Your task to perform on an android device: uninstall "Google Calendar" Image 0: 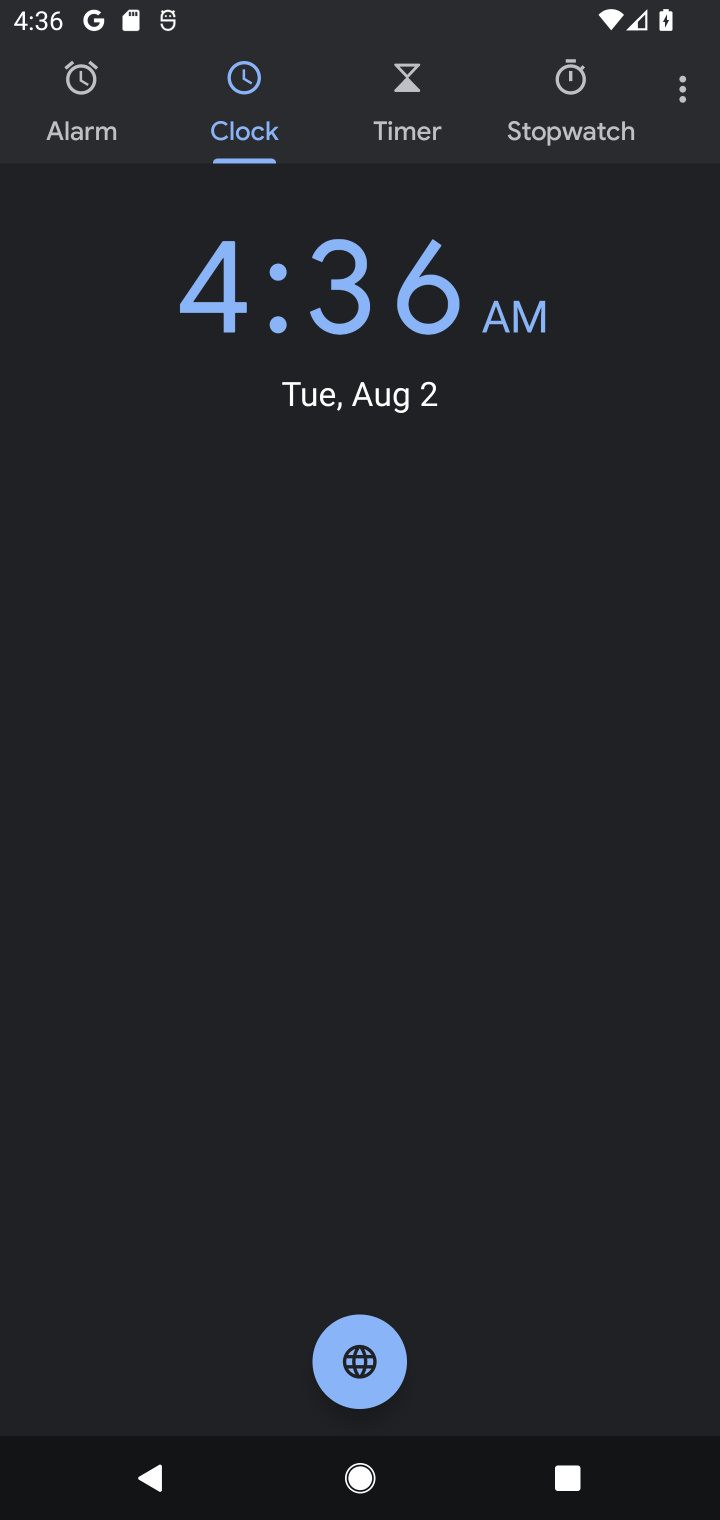
Step 0: press home button
Your task to perform on an android device: uninstall "Google Calendar" Image 1: 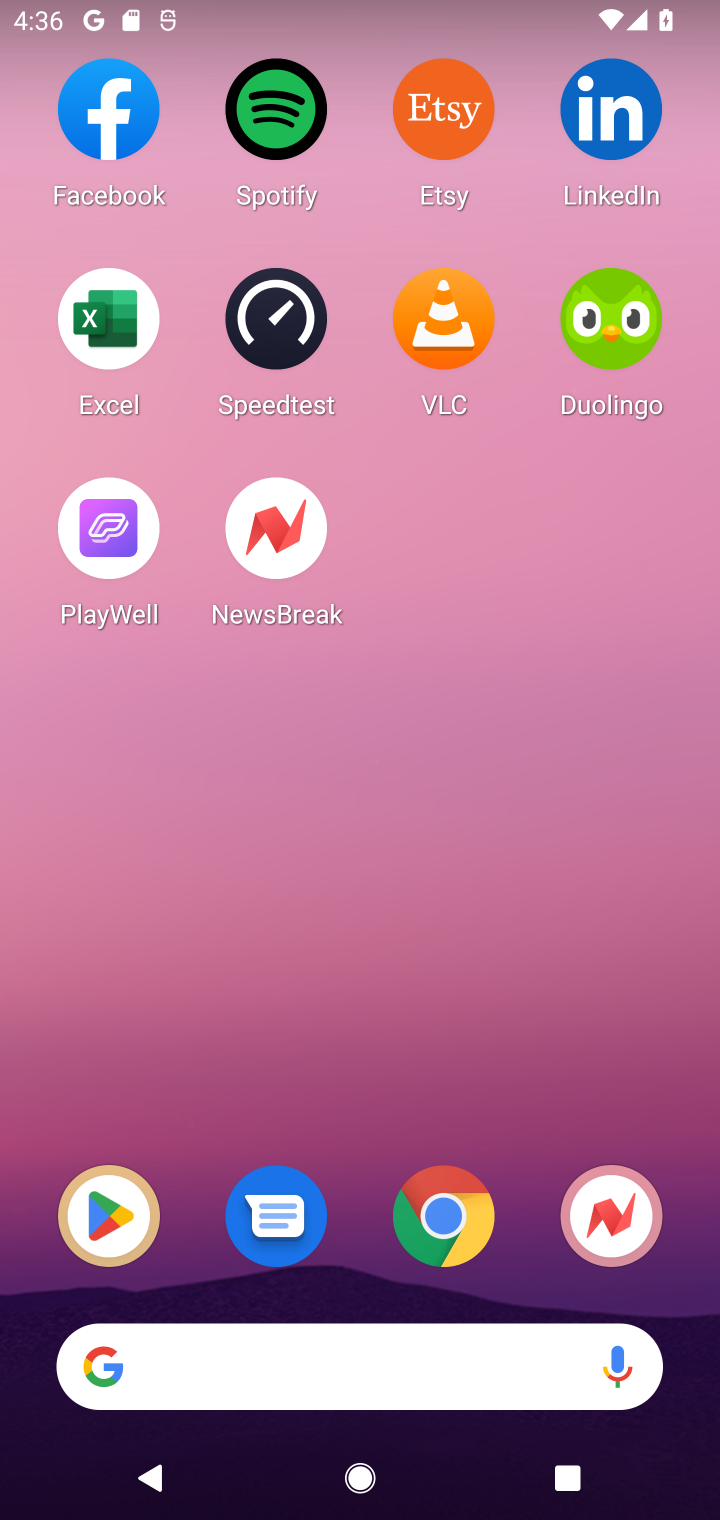
Step 1: drag from (246, 1058) to (267, 103)
Your task to perform on an android device: uninstall "Google Calendar" Image 2: 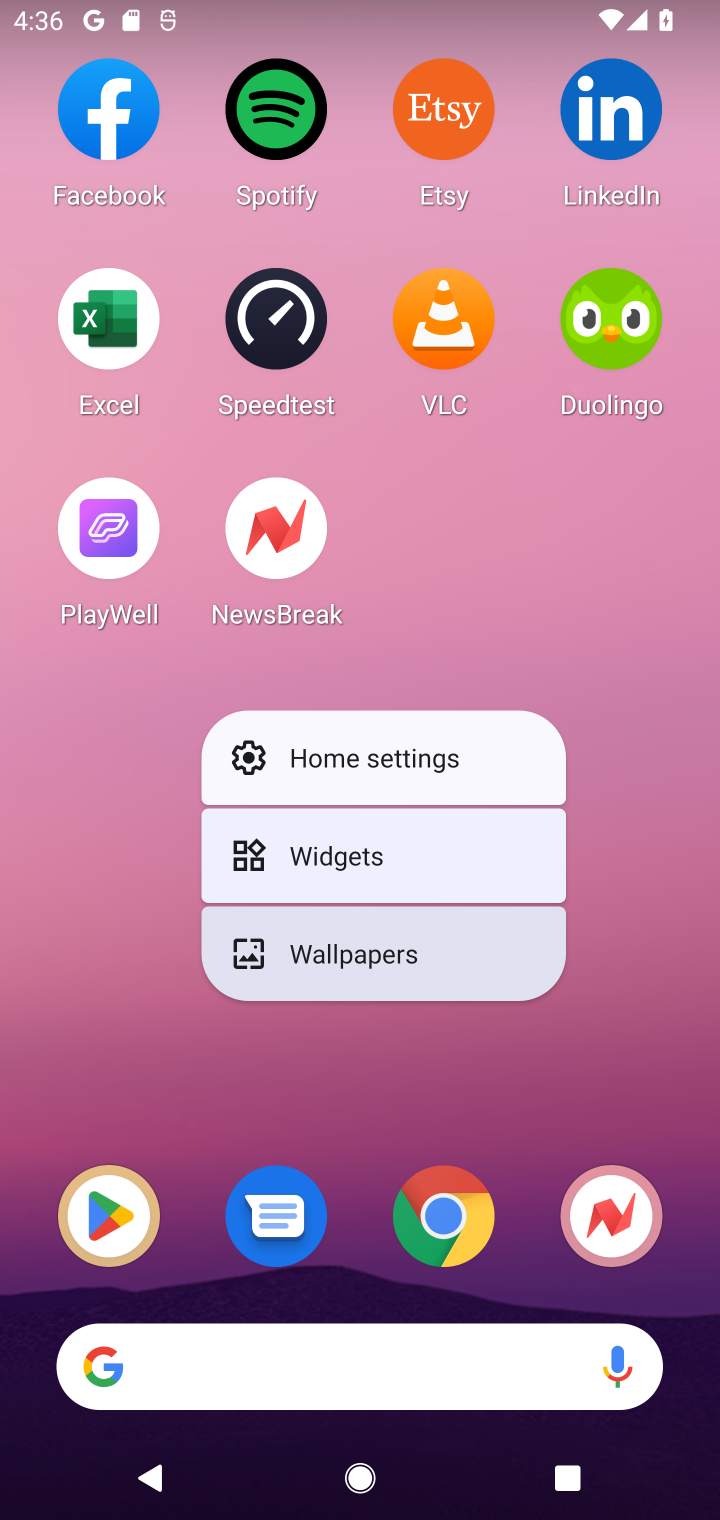
Step 2: click (96, 1253)
Your task to perform on an android device: uninstall "Google Calendar" Image 3: 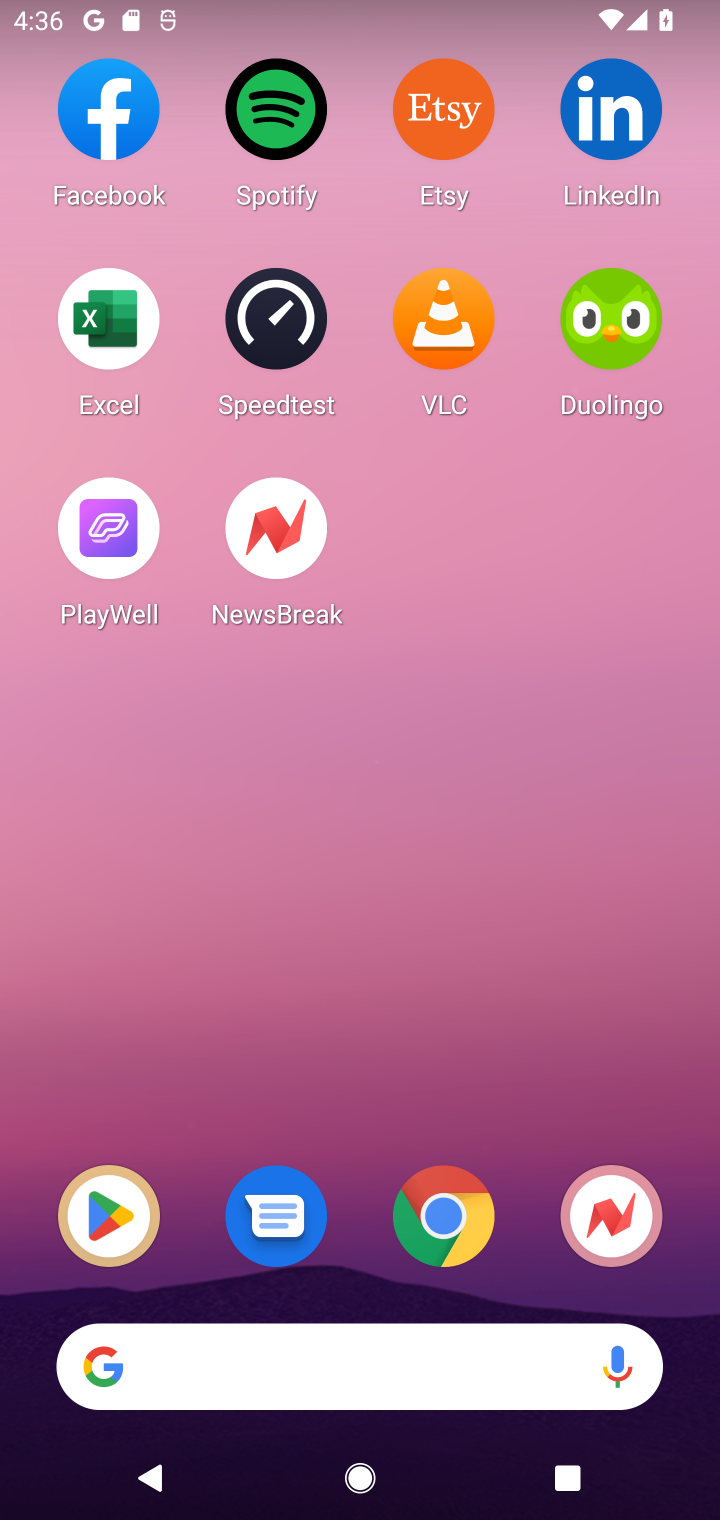
Step 3: click (96, 1253)
Your task to perform on an android device: uninstall "Google Calendar" Image 4: 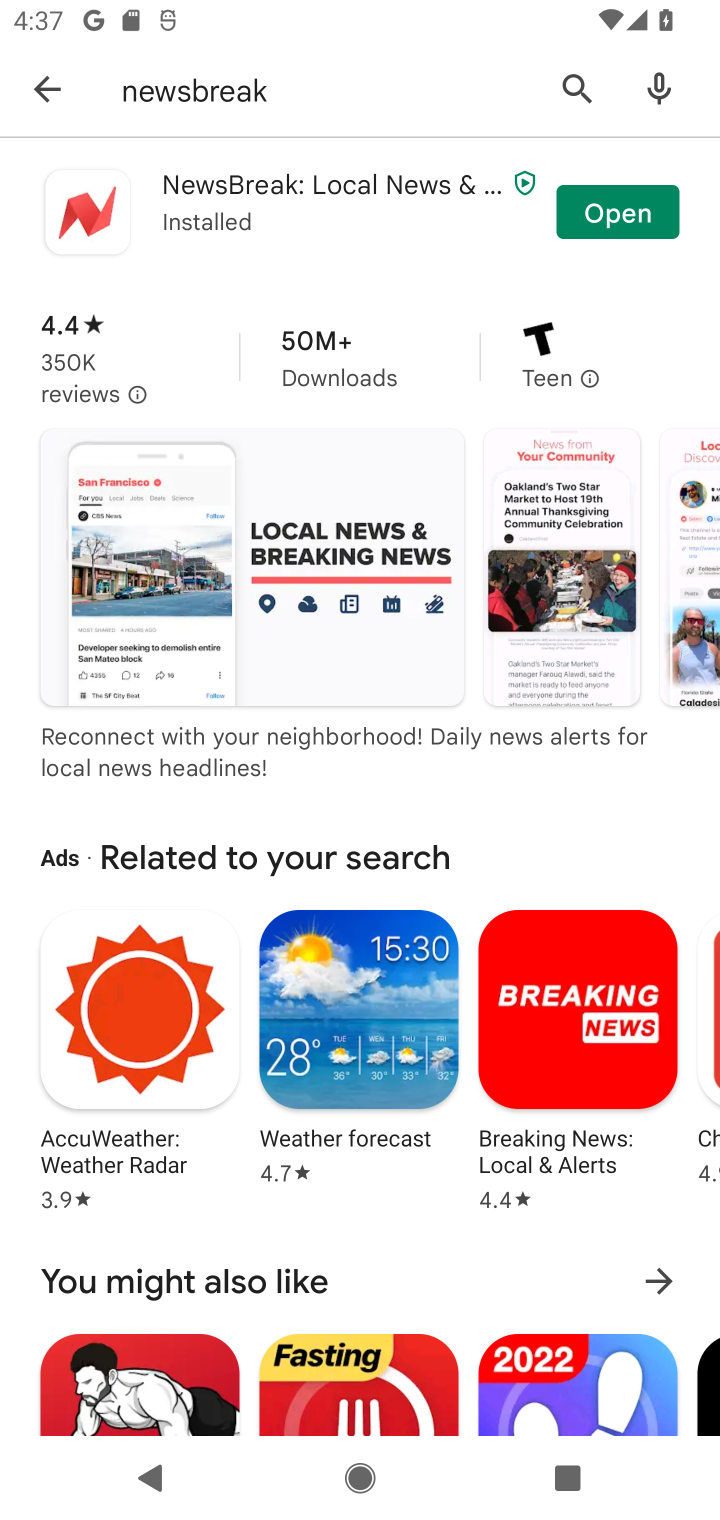
Step 4: click (587, 77)
Your task to perform on an android device: uninstall "Google Calendar" Image 5: 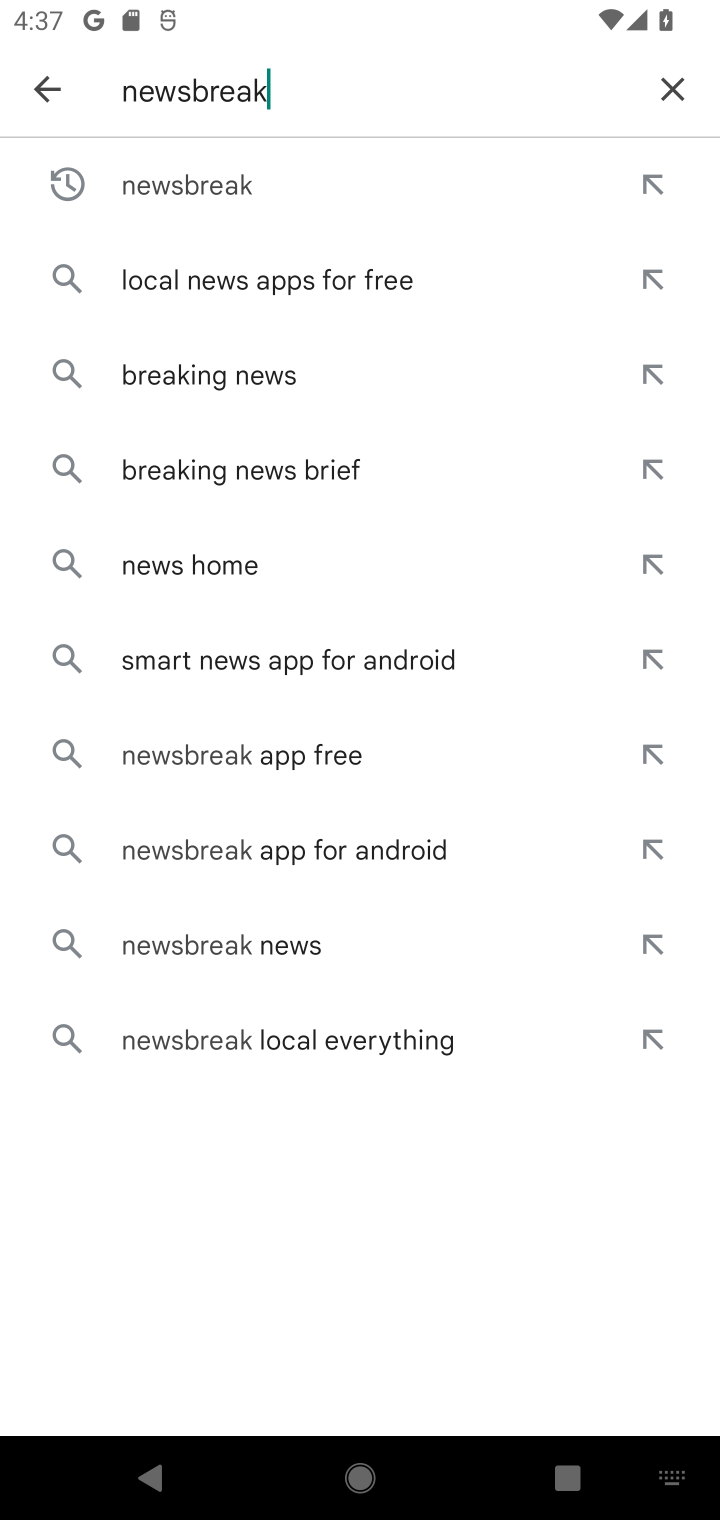
Step 5: click (664, 68)
Your task to perform on an android device: uninstall "Google Calendar" Image 6: 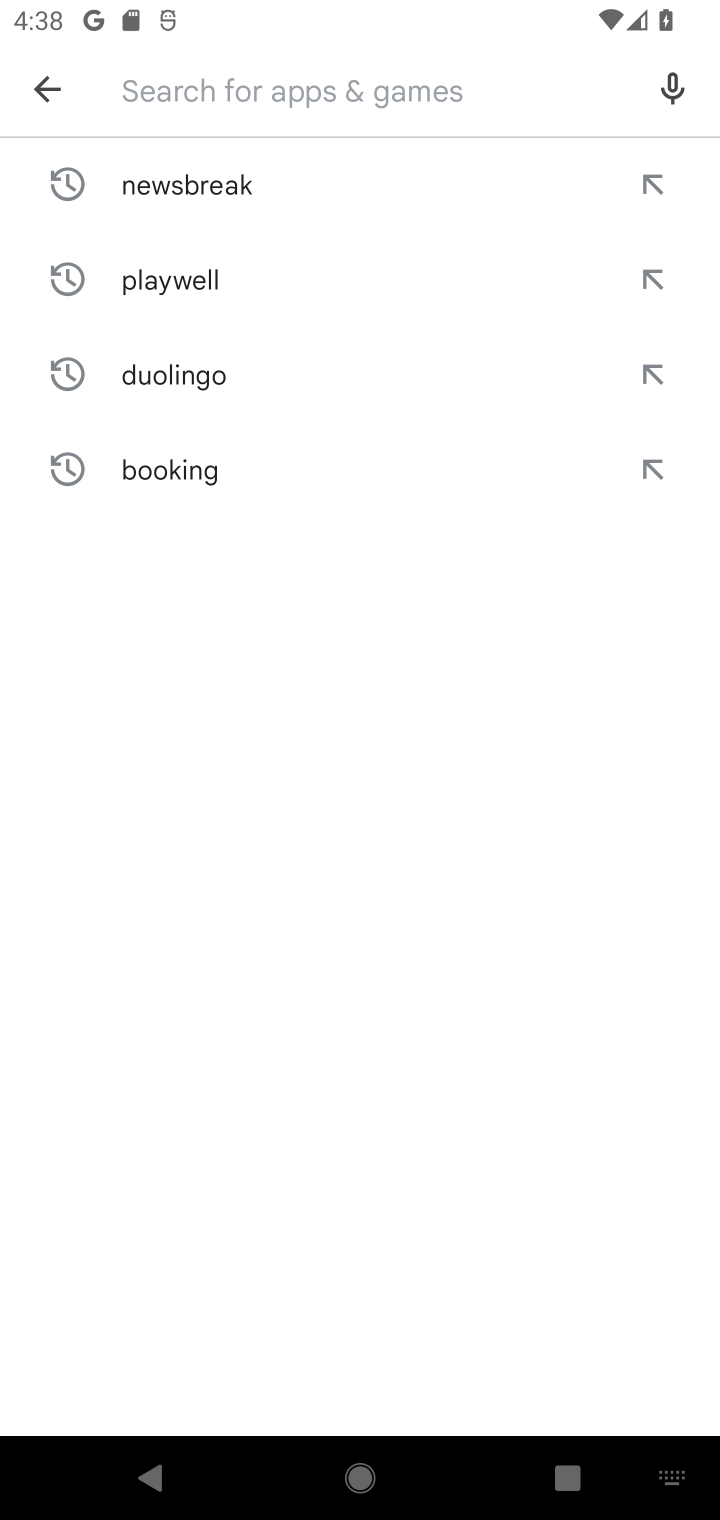
Step 6: type "google calendar"
Your task to perform on an android device: uninstall "Google Calendar" Image 7: 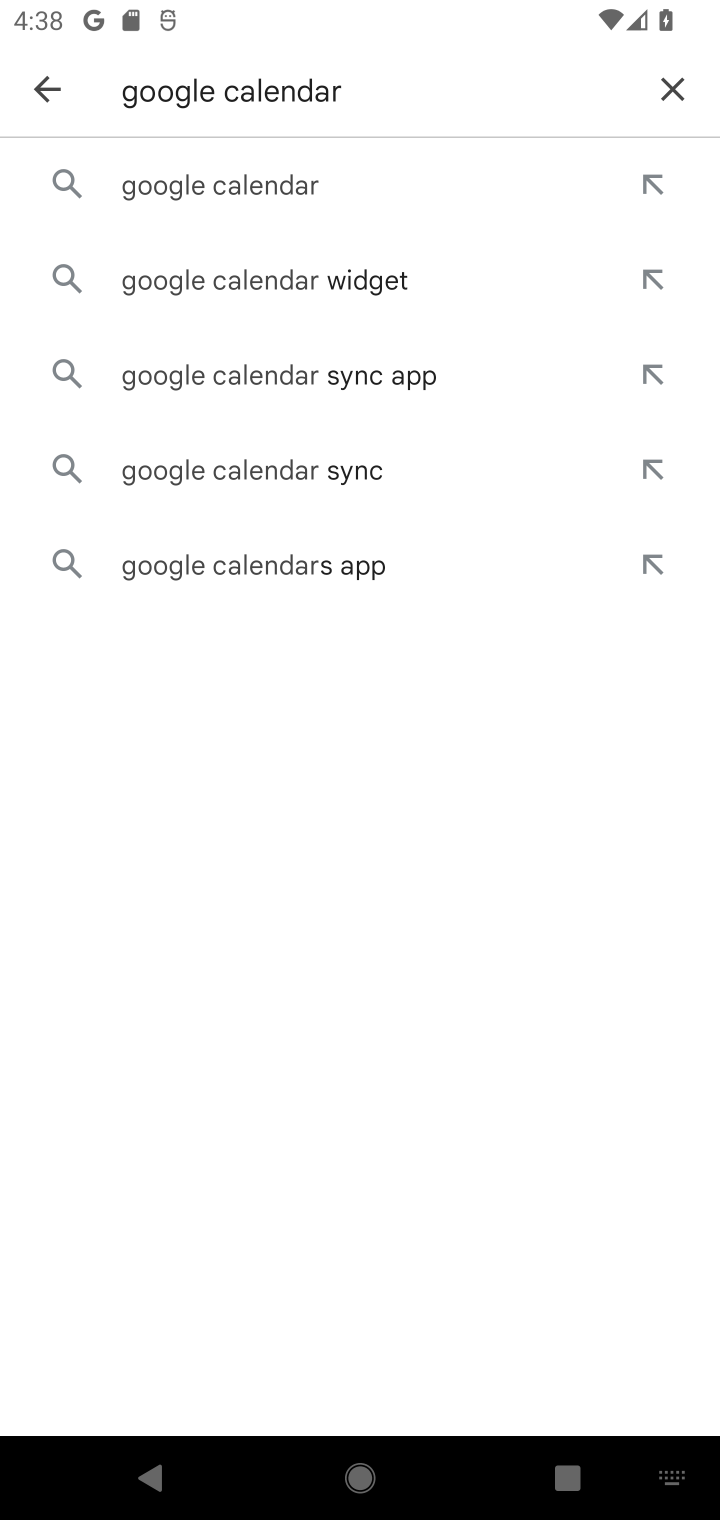
Step 7: click (486, 206)
Your task to perform on an android device: uninstall "Google Calendar" Image 8: 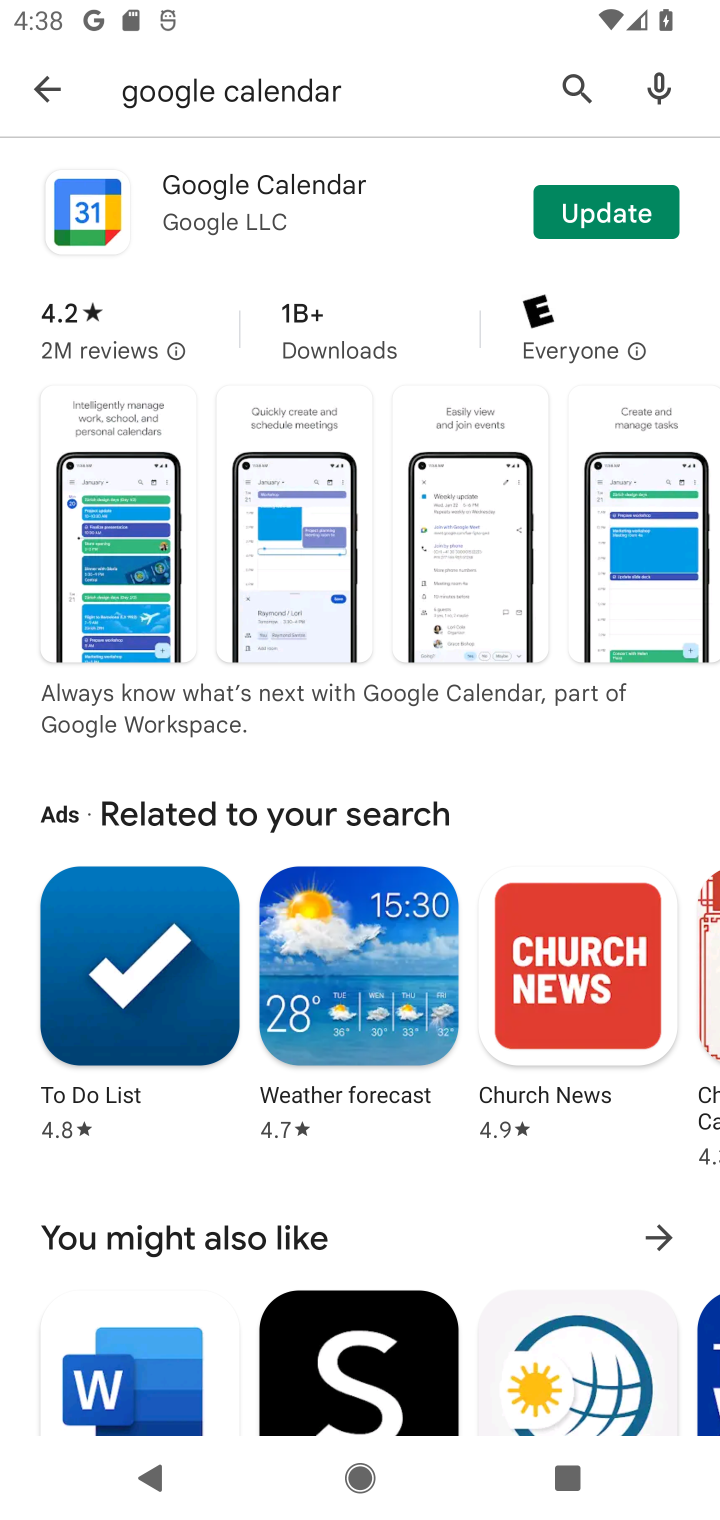
Step 8: click (596, 221)
Your task to perform on an android device: uninstall "Google Calendar" Image 9: 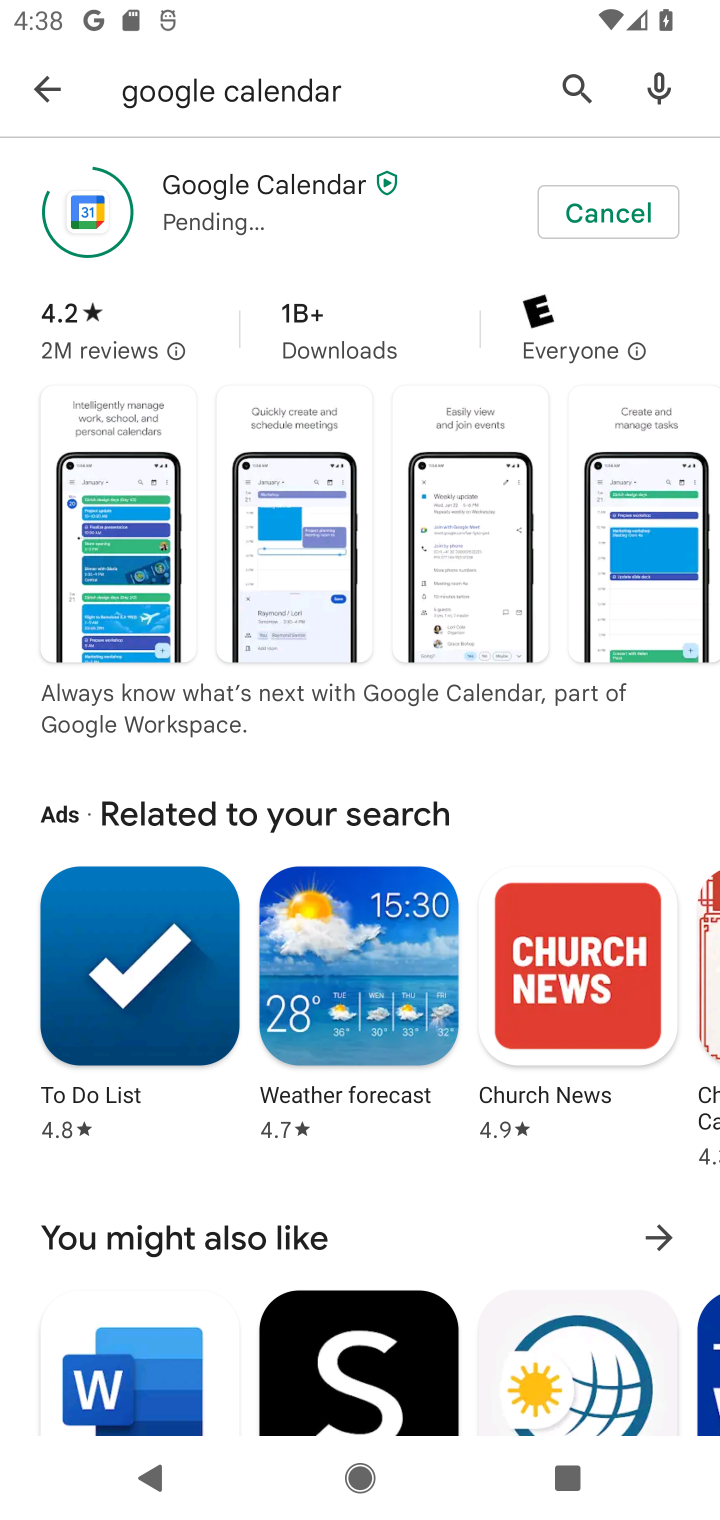
Step 9: task complete